Your task to perform on an android device: turn off translation in the chrome app Image 0: 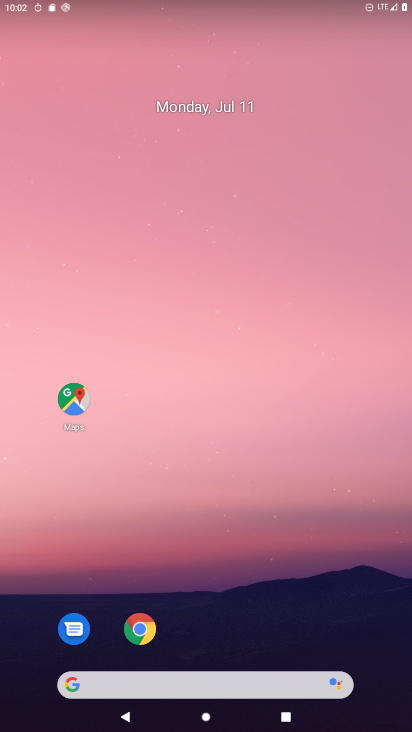
Step 0: click (129, 636)
Your task to perform on an android device: turn off translation in the chrome app Image 1: 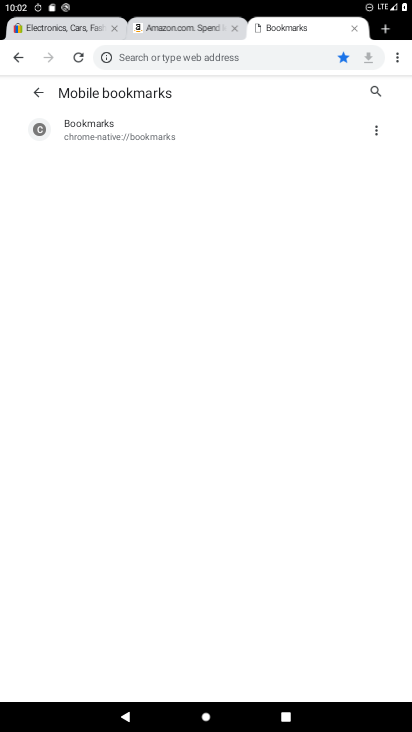
Step 1: click (406, 59)
Your task to perform on an android device: turn off translation in the chrome app Image 2: 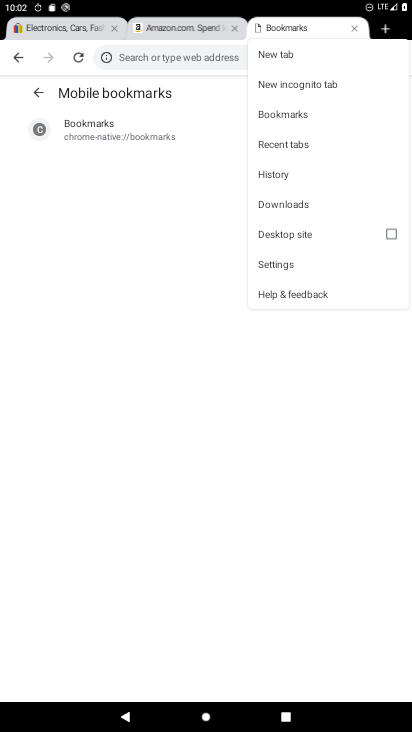
Step 2: click (307, 270)
Your task to perform on an android device: turn off translation in the chrome app Image 3: 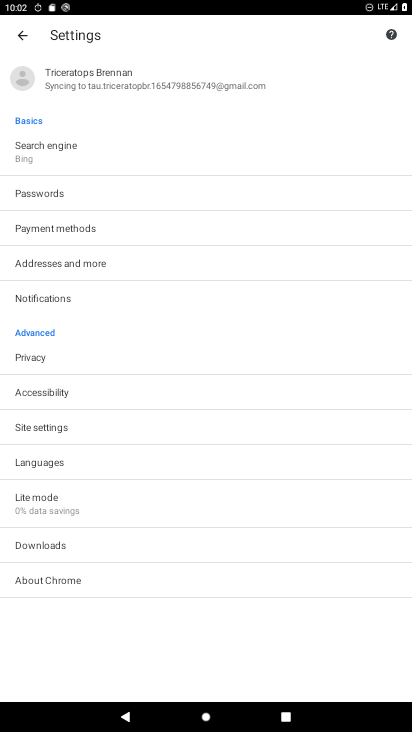
Step 3: click (180, 462)
Your task to perform on an android device: turn off translation in the chrome app Image 4: 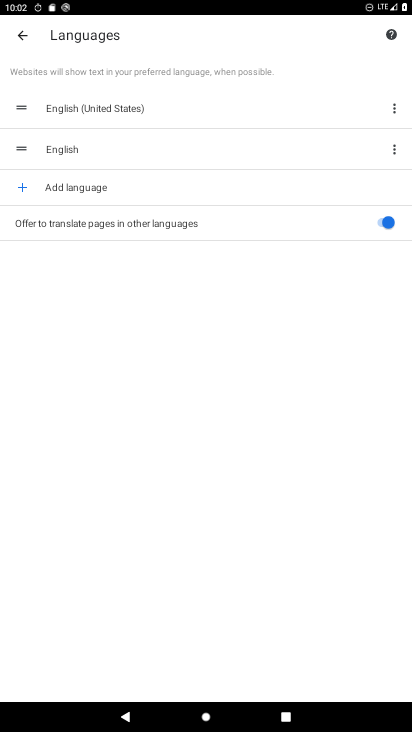
Step 4: click (387, 224)
Your task to perform on an android device: turn off translation in the chrome app Image 5: 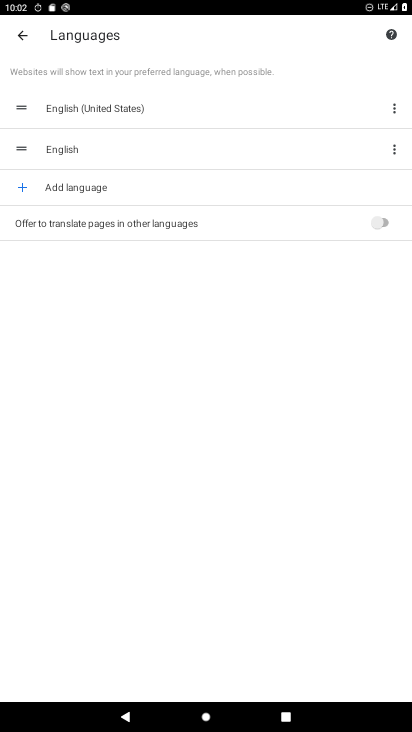
Step 5: task complete